Your task to perform on an android device: turn off sleep mode Image 0: 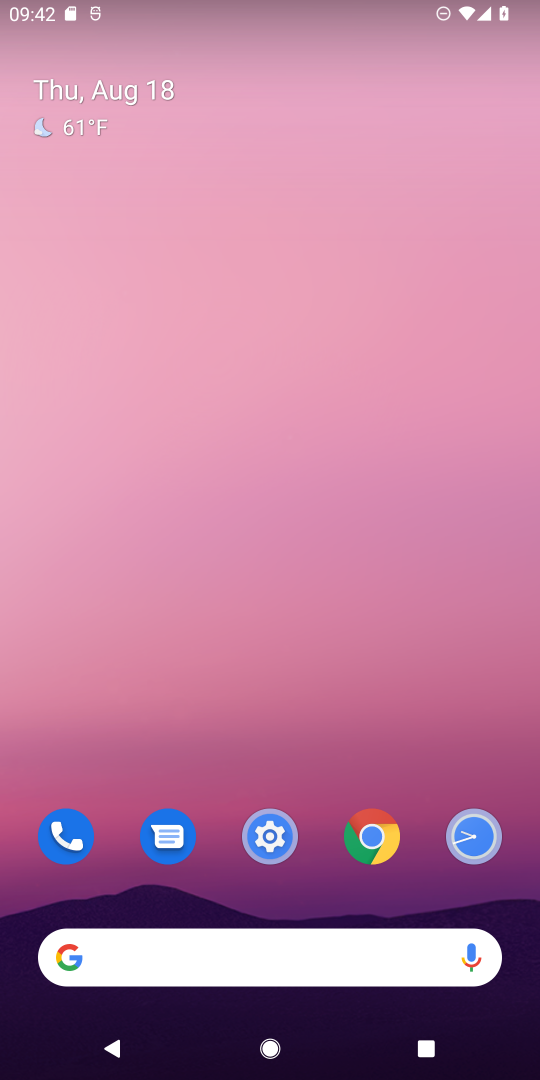
Step 0: drag from (372, 762) to (437, 117)
Your task to perform on an android device: turn off sleep mode Image 1: 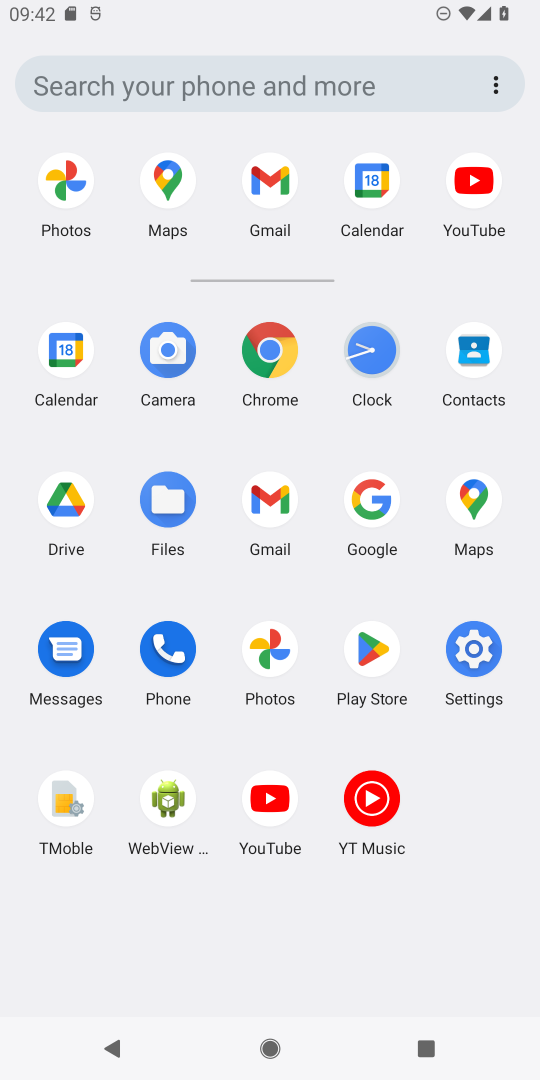
Step 1: click (475, 657)
Your task to perform on an android device: turn off sleep mode Image 2: 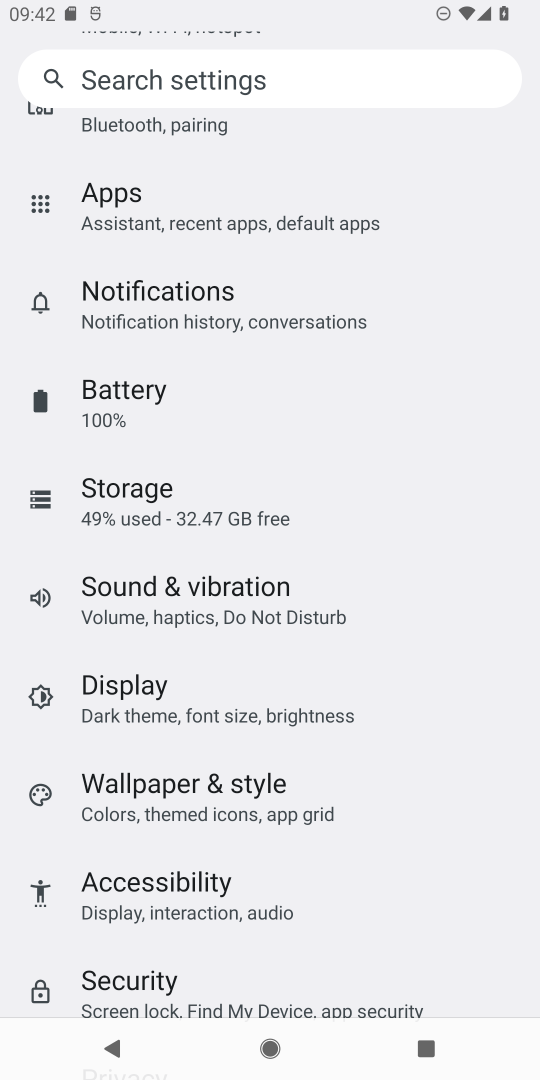
Step 2: drag from (299, 260) to (252, 857)
Your task to perform on an android device: turn off sleep mode Image 3: 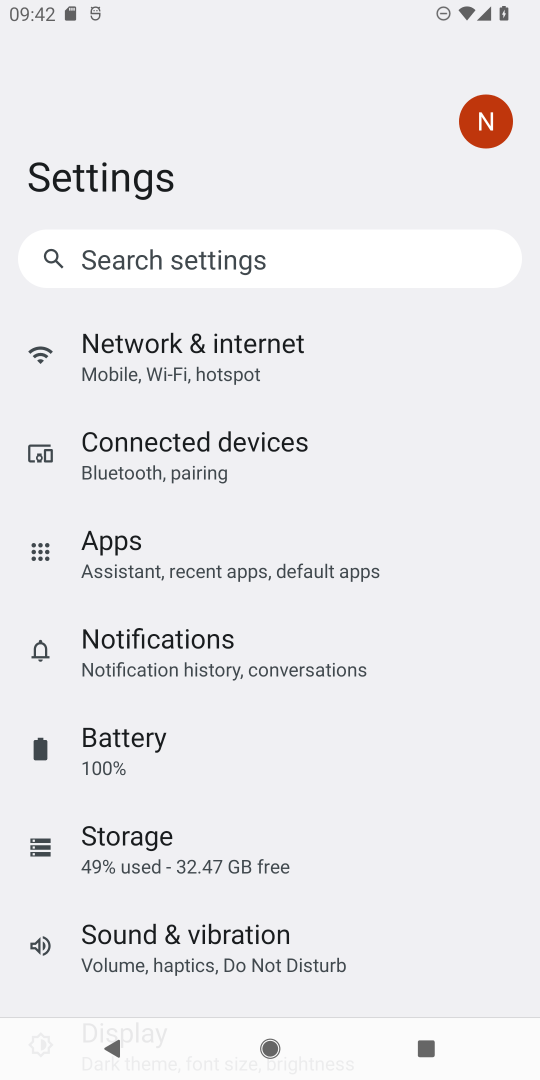
Step 3: drag from (229, 826) to (294, 351)
Your task to perform on an android device: turn off sleep mode Image 4: 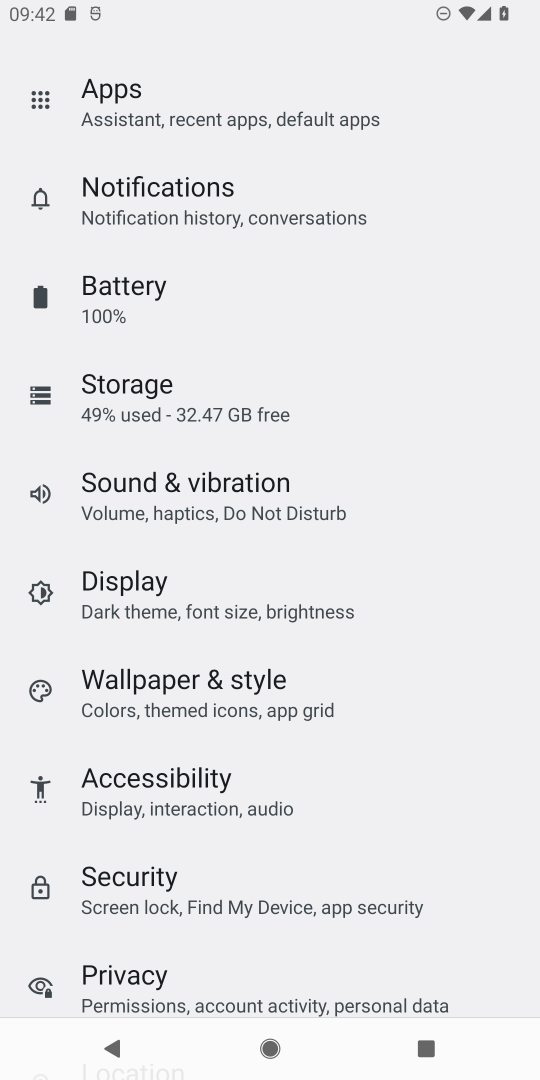
Step 4: click (155, 623)
Your task to perform on an android device: turn off sleep mode Image 5: 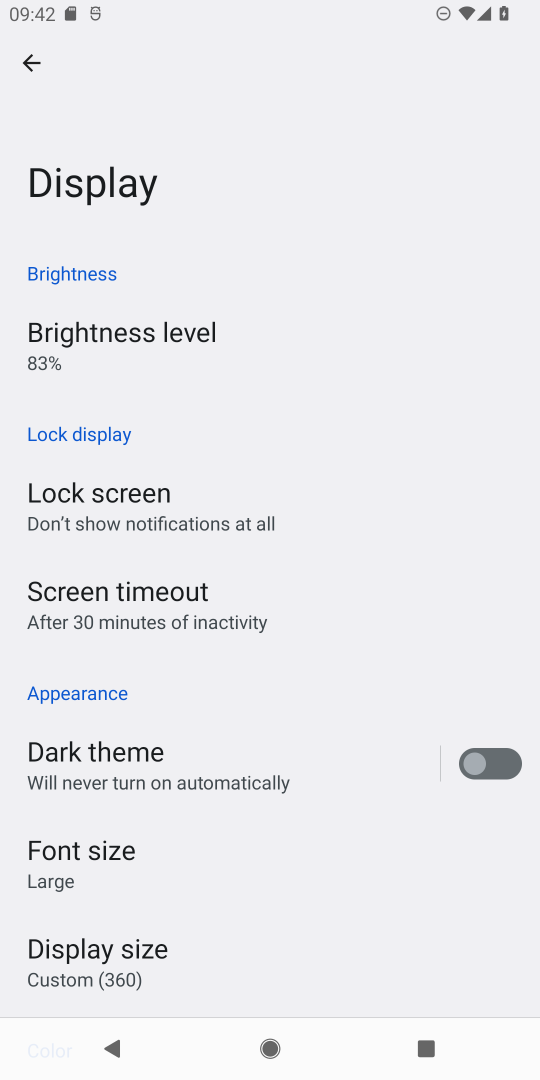
Step 5: drag from (261, 958) to (265, 600)
Your task to perform on an android device: turn off sleep mode Image 6: 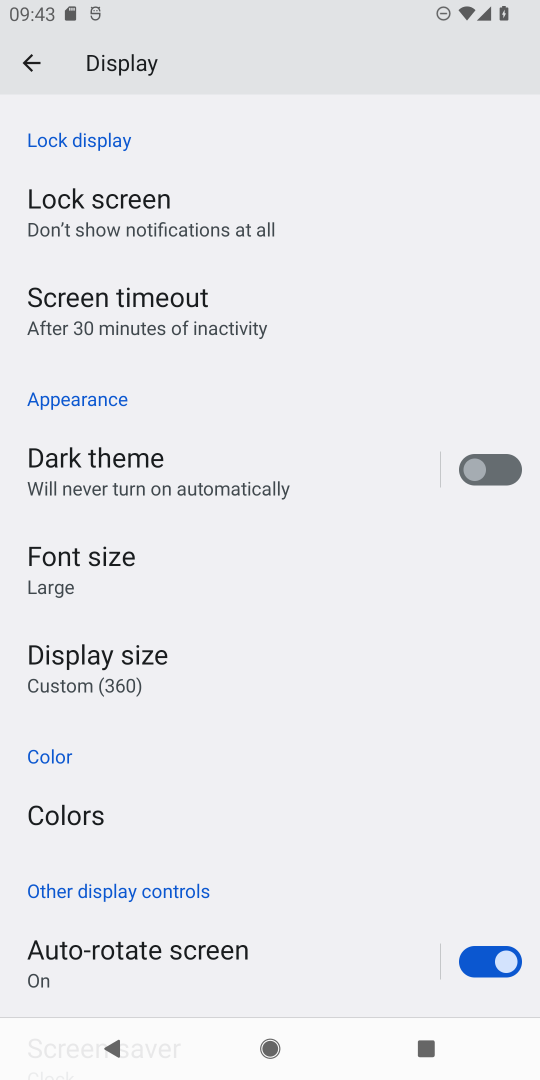
Step 6: click (166, 332)
Your task to perform on an android device: turn off sleep mode Image 7: 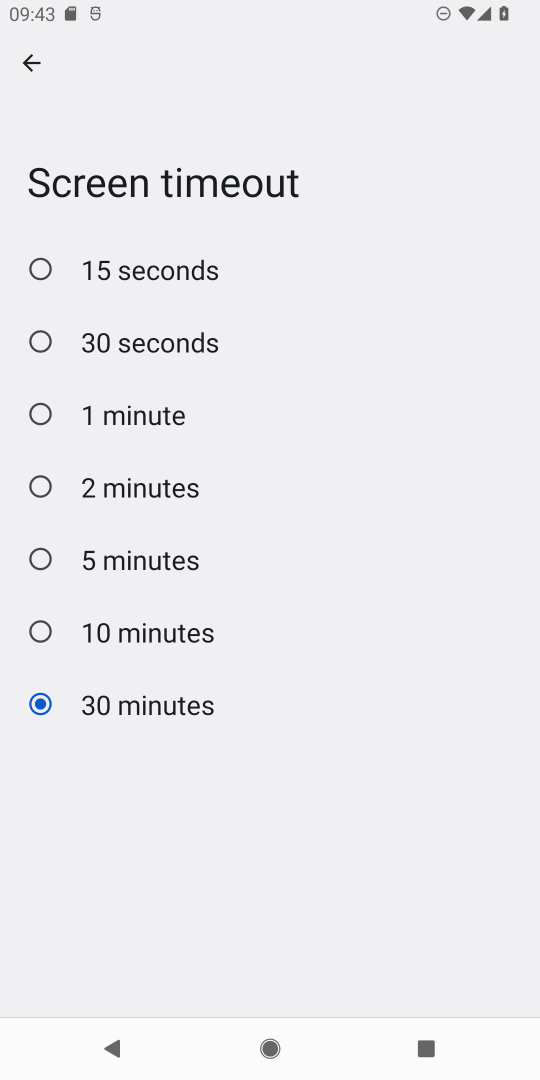
Step 7: task complete